Your task to perform on an android device: turn on priority inbox in the gmail app Image 0: 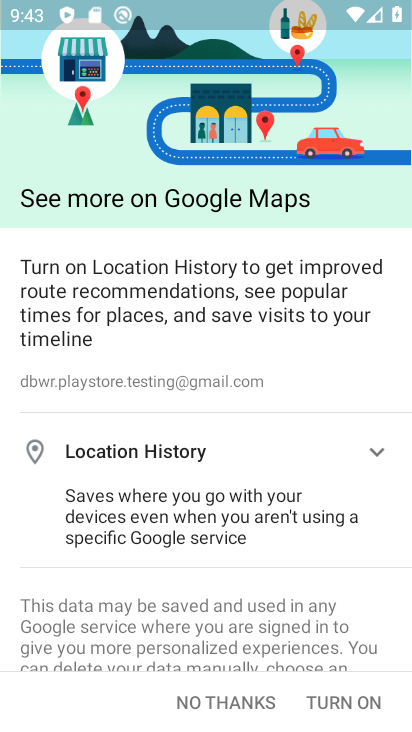
Step 0: click (240, 689)
Your task to perform on an android device: turn on priority inbox in the gmail app Image 1: 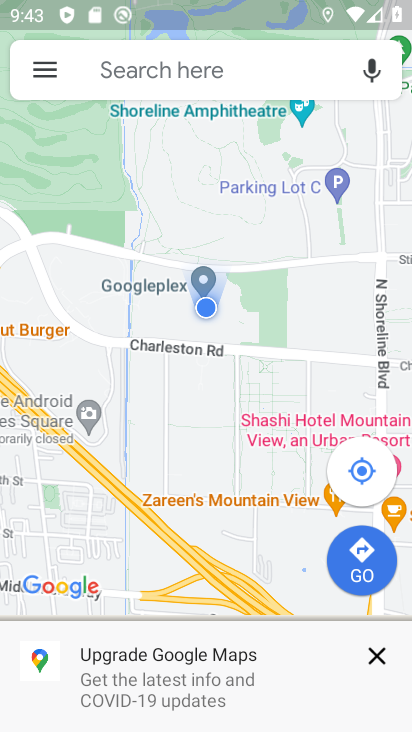
Step 1: press home button
Your task to perform on an android device: turn on priority inbox in the gmail app Image 2: 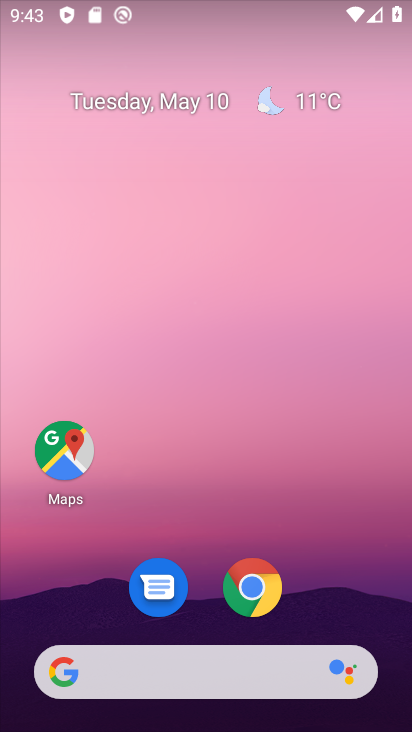
Step 2: drag from (197, 622) to (223, 217)
Your task to perform on an android device: turn on priority inbox in the gmail app Image 3: 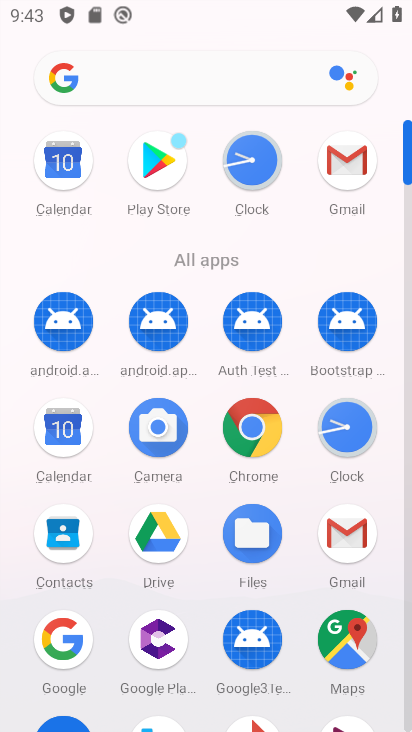
Step 3: click (348, 547)
Your task to perform on an android device: turn on priority inbox in the gmail app Image 4: 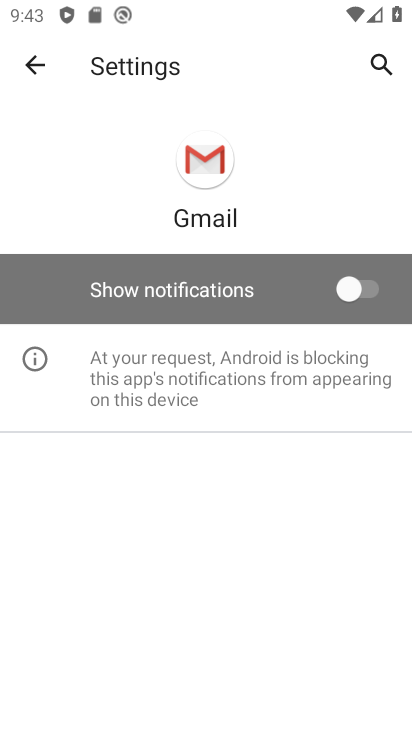
Step 4: click (42, 75)
Your task to perform on an android device: turn on priority inbox in the gmail app Image 5: 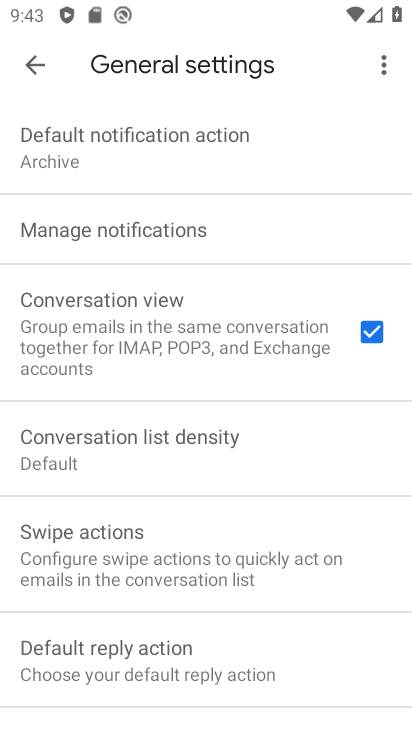
Step 5: click (34, 65)
Your task to perform on an android device: turn on priority inbox in the gmail app Image 6: 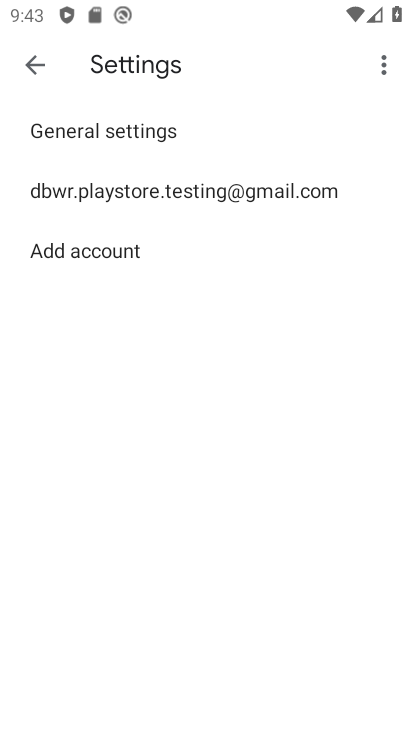
Step 6: click (148, 192)
Your task to perform on an android device: turn on priority inbox in the gmail app Image 7: 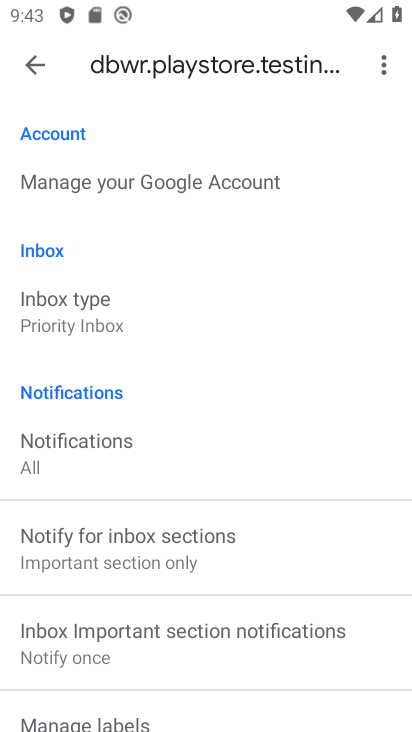
Step 7: task complete